Your task to perform on an android device: visit the assistant section in the google photos Image 0: 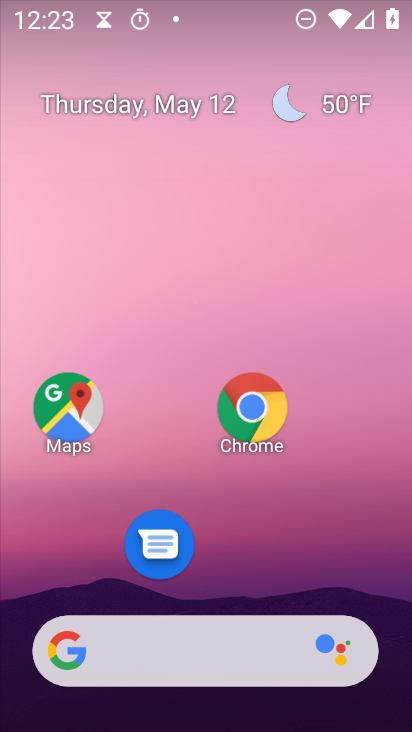
Step 0: drag from (239, 573) to (177, 25)
Your task to perform on an android device: visit the assistant section in the google photos Image 1: 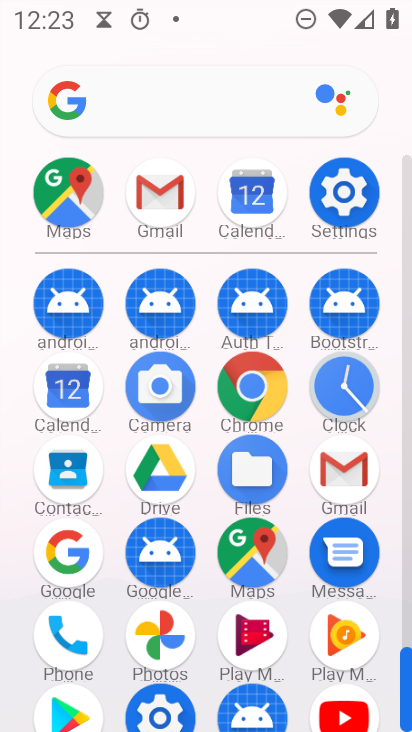
Step 1: click (164, 634)
Your task to perform on an android device: visit the assistant section in the google photos Image 2: 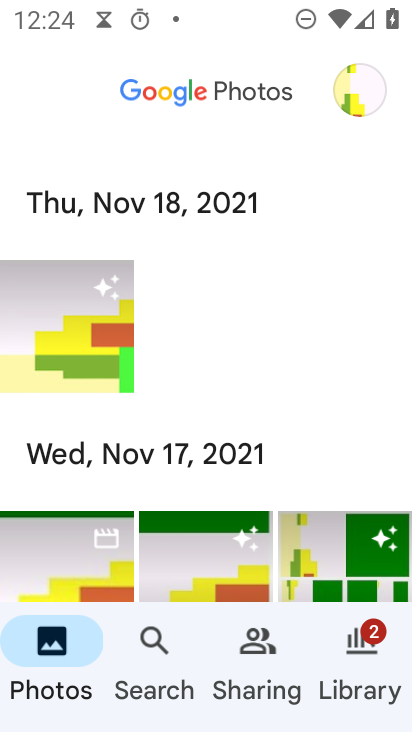
Step 2: task complete